Your task to perform on an android device: change notifications settings Image 0: 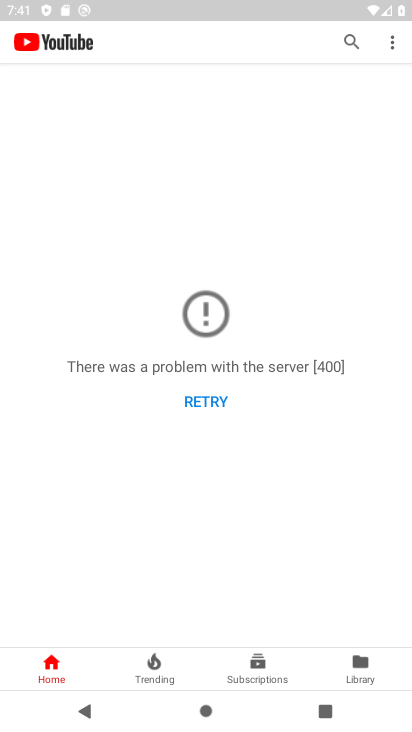
Step 0: press home button
Your task to perform on an android device: change notifications settings Image 1: 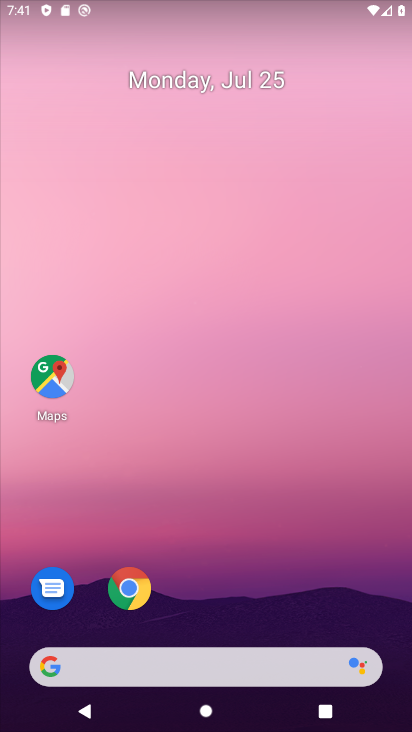
Step 1: drag from (155, 637) to (229, 36)
Your task to perform on an android device: change notifications settings Image 2: 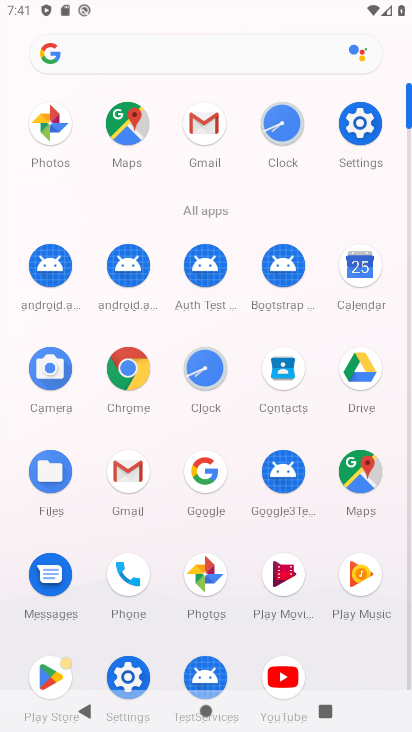
Step 2: click (351, 137)
Your task to perform on an android device: change notifications settings Image 3: 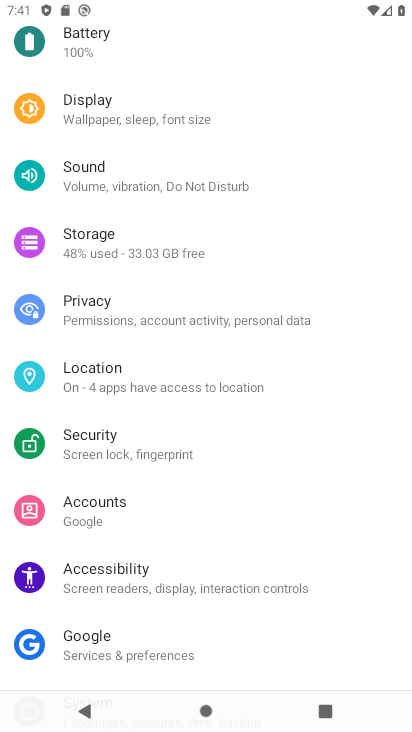
Step 3: drag from (126, 161) to (172, 580)
Your task to perform on an android device: change notifications settings Image 4: 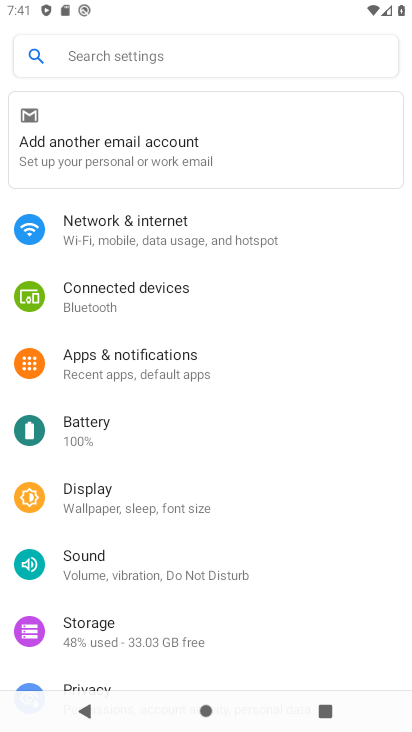
Step 4: click (160, 355)
Your task to perform on an android device: change notifications settings Image 5: 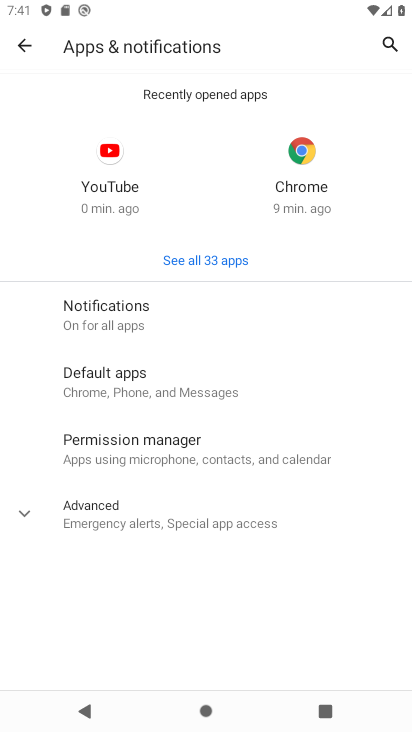
Step 5: click (92, 510)
Your task to perform on an android device: change notifications settings Image 6: 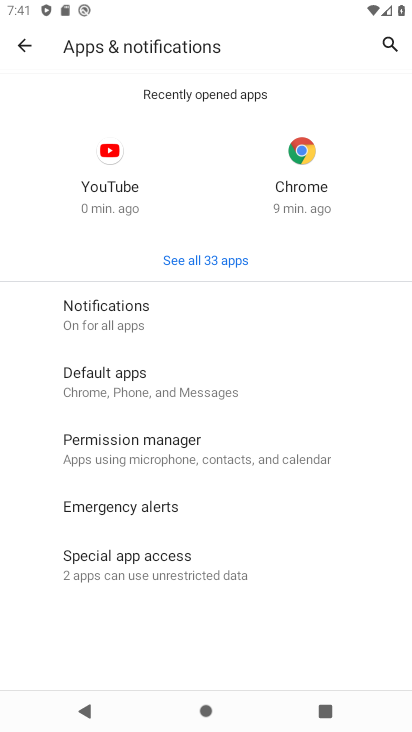
Step 6: task complete